Your task to perform on an android device: Set the phone to "Do not disturb". Image 0: 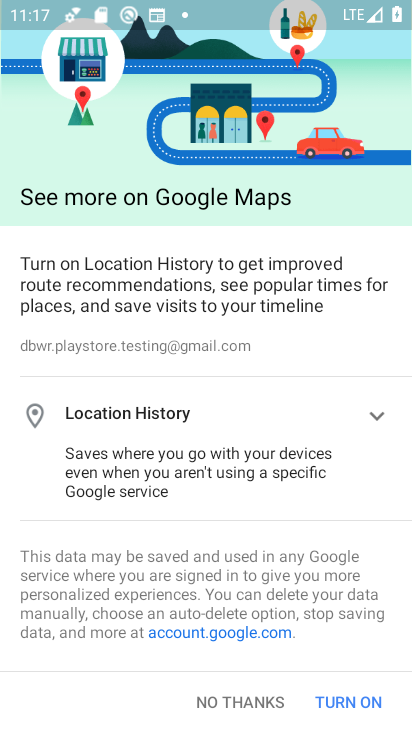
Step 0: click (332, 692)
Your task to perform on an android device: Set the phone to "Do not disturb". Image 1: 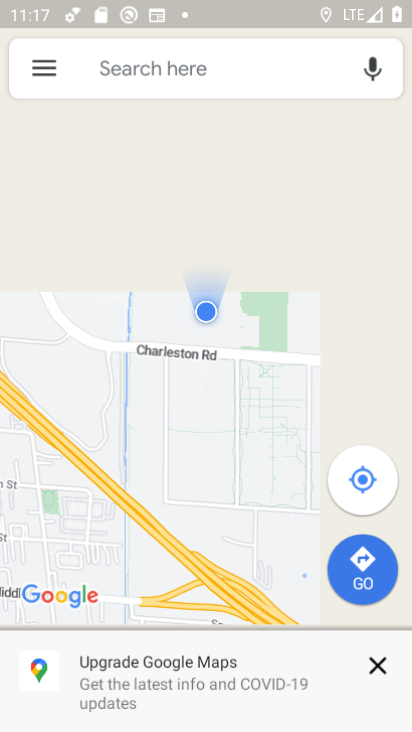
Step 1: click (341, 694)
Your task to perform on an android device: Set the phone to "Do not disturb". Image 2: 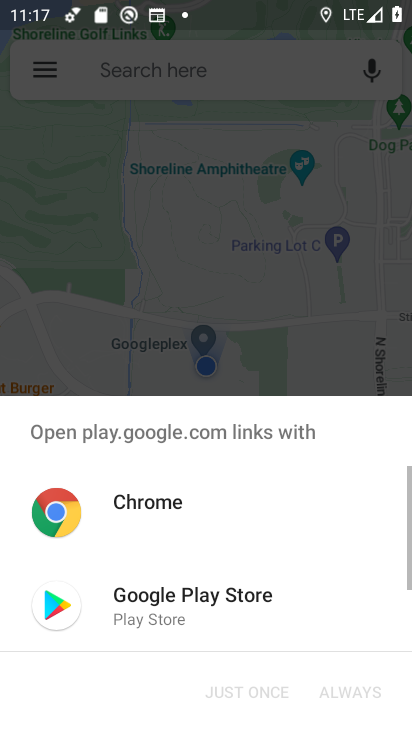
Step 2: press home button
Your task to perform on an android device: Set the phone to "Do not disturb". Image 3: 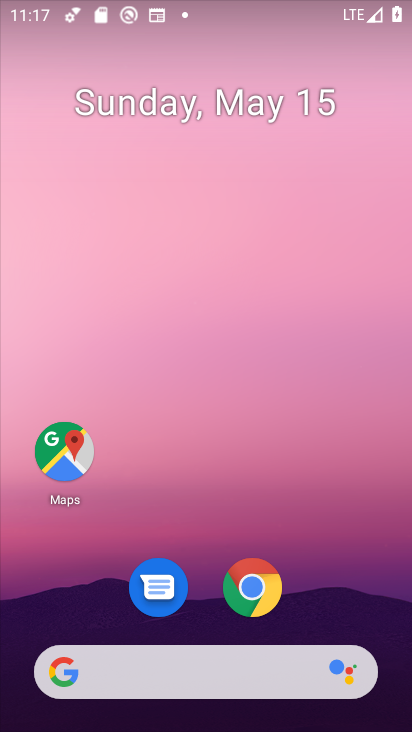
Step 3: drag from (196, 622) to (217, 156)
Your task to perform on an android device: Set the phone to "Do not disturb". Image 4: 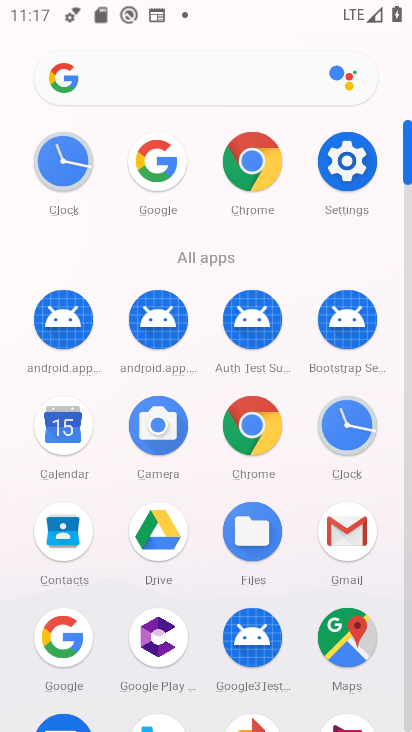
Step 4: click (325, 155)
Your task to perform on an android device: Set the phone to "Do not disturb". Image 5: 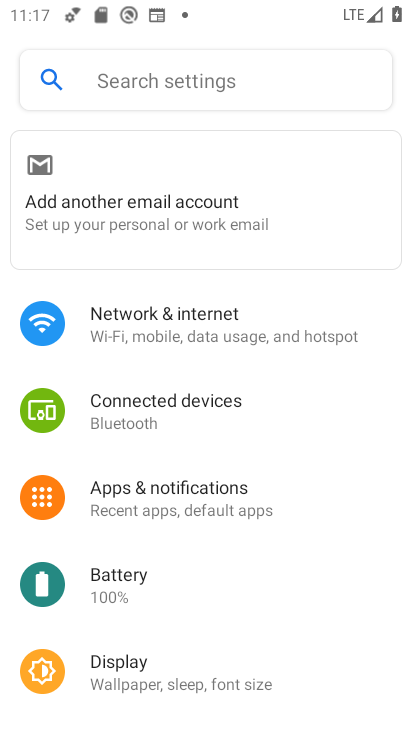
Step 5: drag from (182, 602) to (232, 315)
Your task to perform on an android device: Set the phone to "Do not disturb". Image 6: 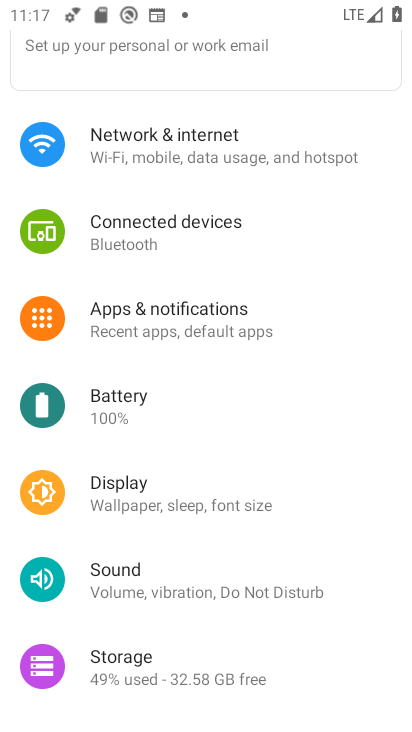
Step 6: click (220, 576)
Your task to perform on an android device: Set the phone to "Do not disturb". Image 7: 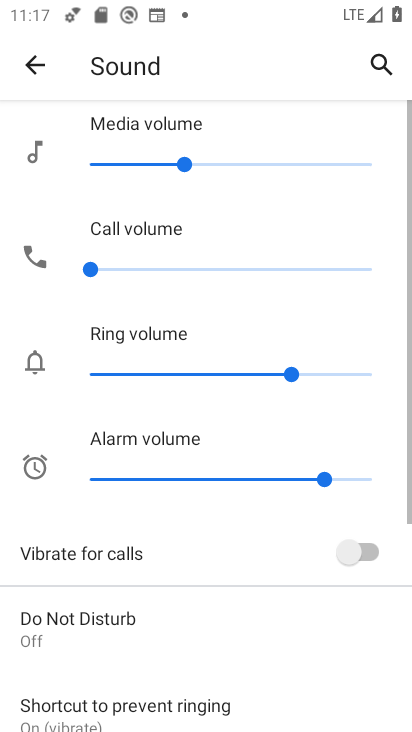
Step 7: drag from (239, 660) to (221, 222)
Your task to perform on an android device: Set the phone to "Do not disturb". Image 8: 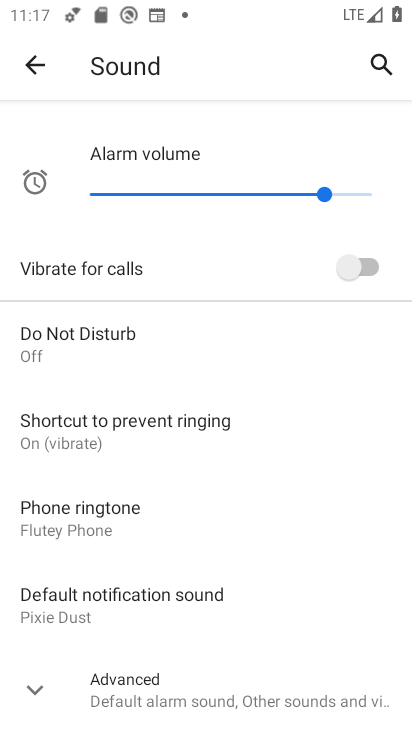
Step 8: click (165, 356)
Your task to perform on an android device: Set the phone to "Do not disturb". Image 9: 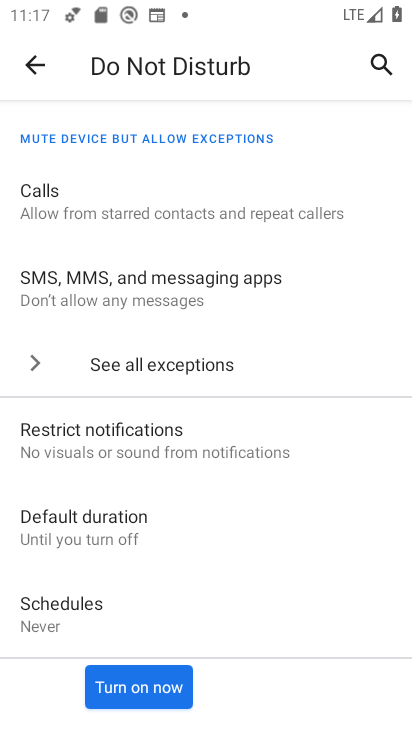
Step 9: click (152, 683)
Your task to perform on an android device: Set the phone to "Do not disturb". Image 10: 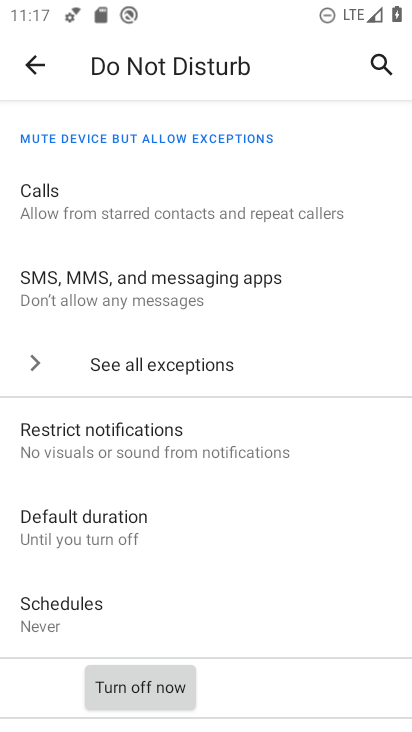
Step 10: task complete